Your task to perform on an android device: Install the Google app Image 0: 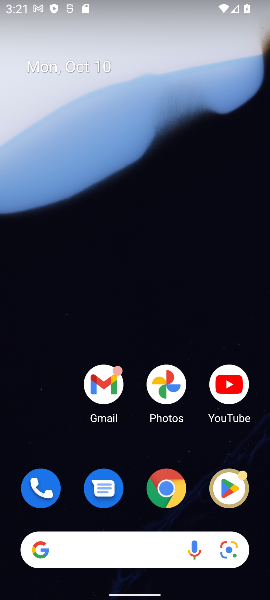
Step 0: click (229, 488)
Your task to perform on an android device: Install the Google app Image 1: 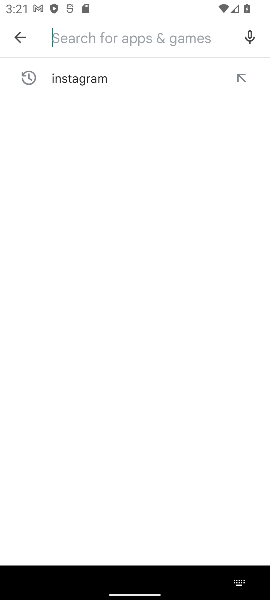
Step 1: click (80, 41)
Your task to perform on an android device: Install the Google app Image 2: 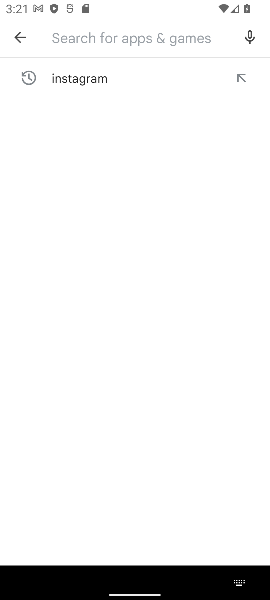
Step 2: click (147, 49)
Your task to perform on an android device: Install the Google app Image 3: 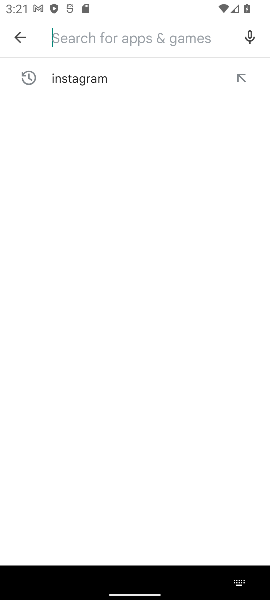
Step 3: type "Google app"
Your task to perform on an android device: Install the Google app Image 4: 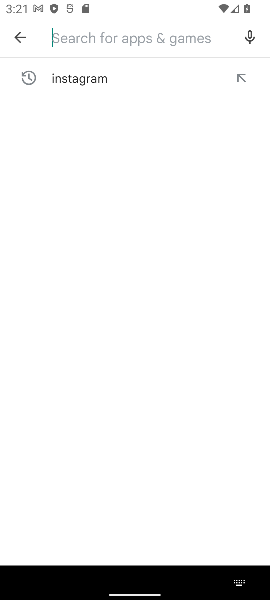
Step 4: click (163, 378)
Your task to perform on an android device: Install the Google app Image 5: 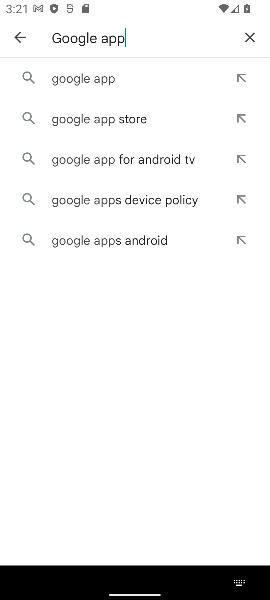
Step 5: click (76, 80)
Your task to perform on an android device: Install the Google app Image 6: 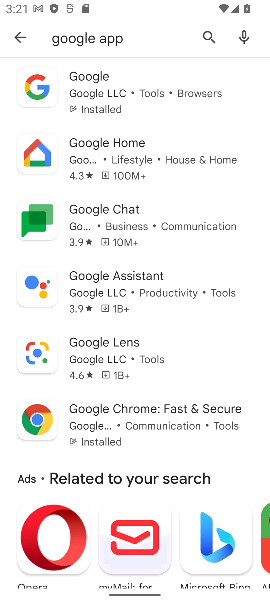
Step 6: click (116, 84)
Your task to perform on an android device: Install the Google app Image 7: 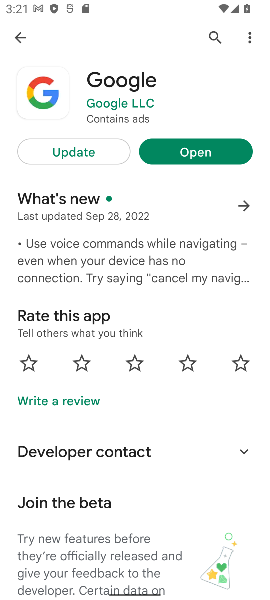
Step 7: task complete